Your task to perform on an android device: Go to privacy settings Image 0: 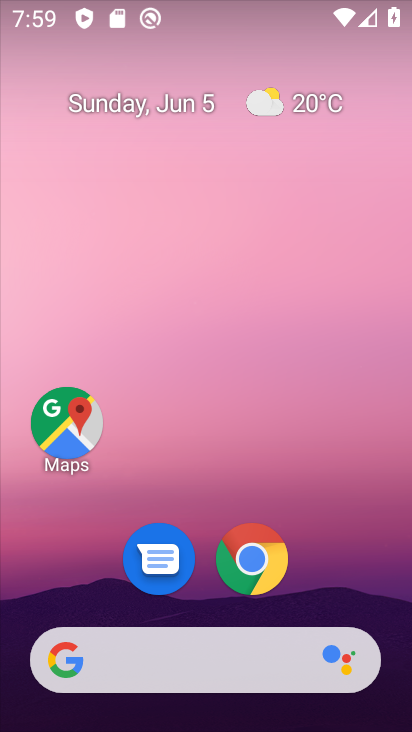
Step 0: drag from (313, 547) to (320, 280)
Your task to perform on an android device: Go to privacy settings Image 1: 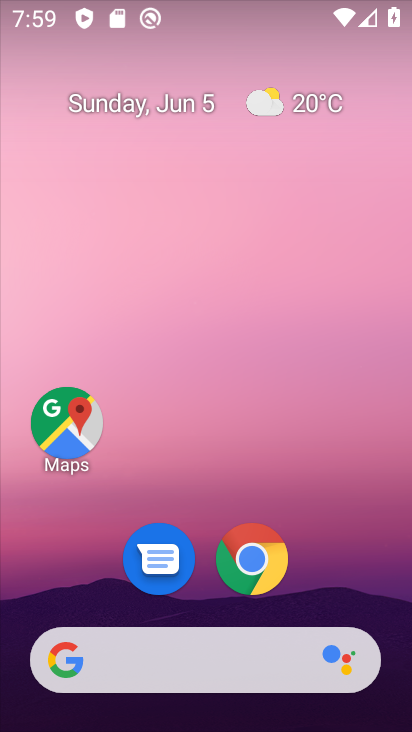
Step 1: drag from (204, 597) to (180, 222)
Your task to perform on an android device: Go to privacy settings Image 2: 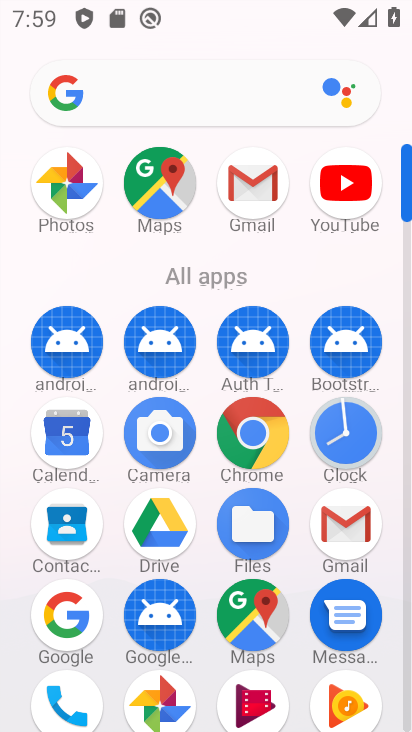
Step 2: drag from (201, 566) to (241, 241)
Your task to perform on an android device: Go to privacy settings Image 3: 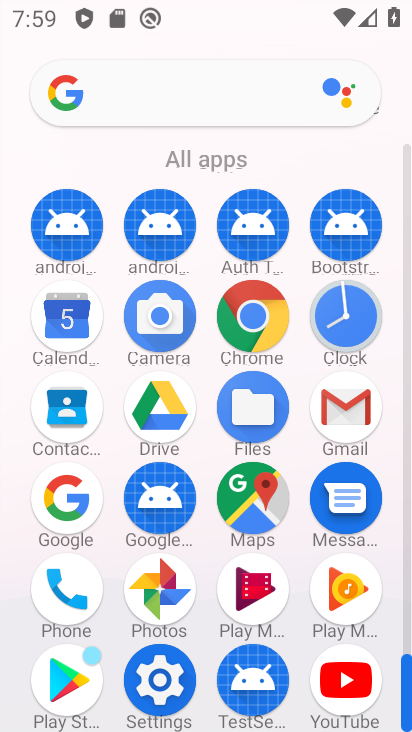
Step 3: click (153, 667)
Your task to perform on an android device: Go to privacy settings Image 4: 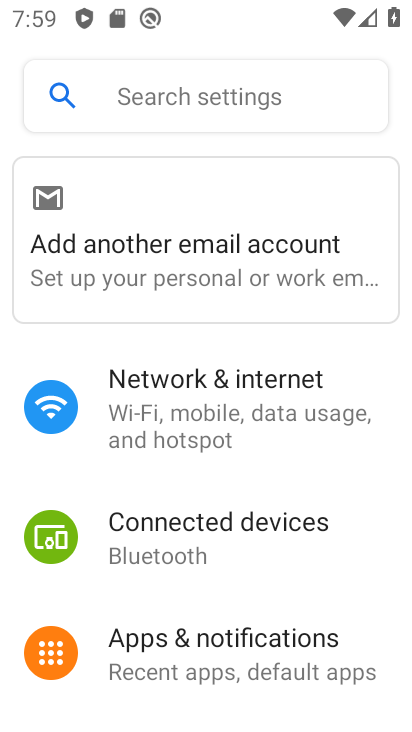
Step 4: drag from (234, 655) to (302, 191)
Your task to perform on an android device: Go to privacy settings Image 5: 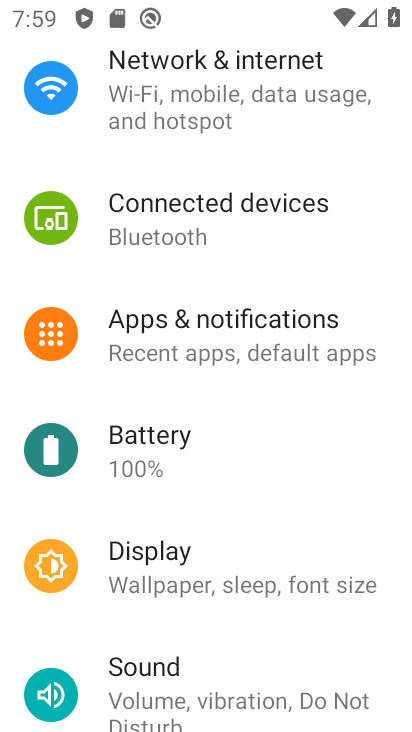
Step 5: drag from (188, 594) to (272, 152)
Your task to perform on an android device: Go to privacy settings Image 6: 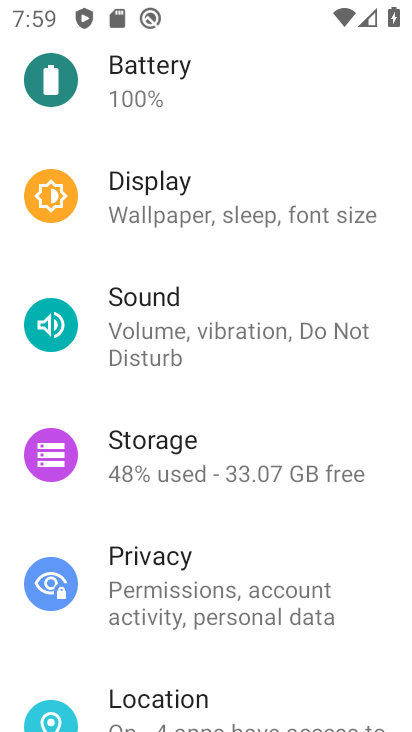
Step 6: click (207, 563)
Your task to perform on an android device: Go to privacy settings Image 7: 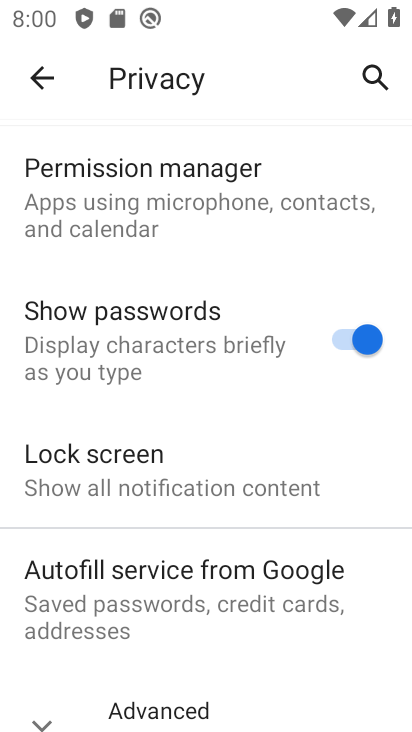
Step 7: task complete